Your task to perform on an android device: change notifications settings Image 0: 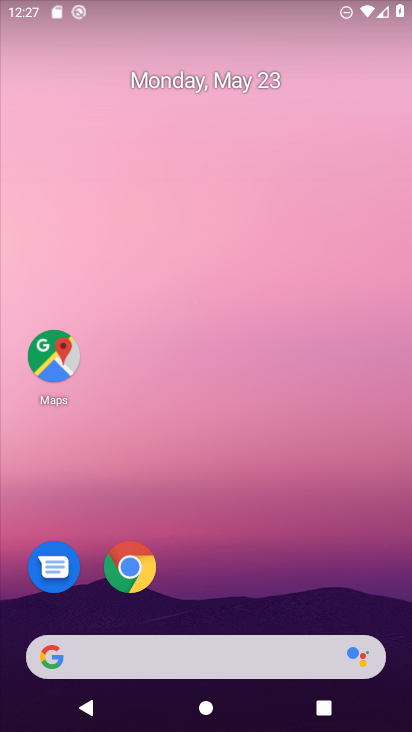
Step 0: drag from (179, 609) to (260, 212)
Your task to perform on an android device: change notifications settings Image 1: 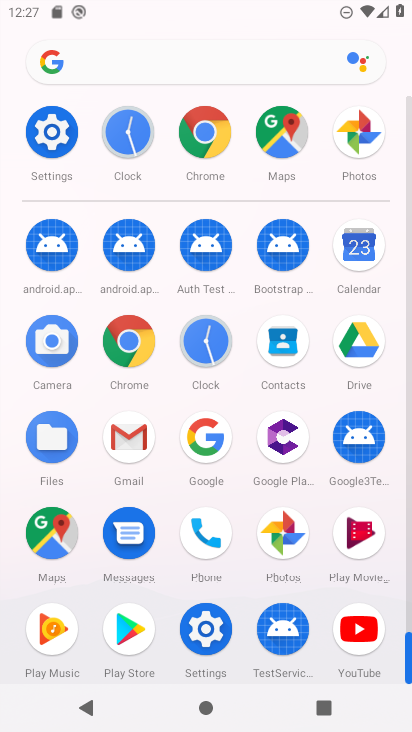
Step 1: click (52, 138)
Your task to perform on an android device: change notifications settings Image 2: 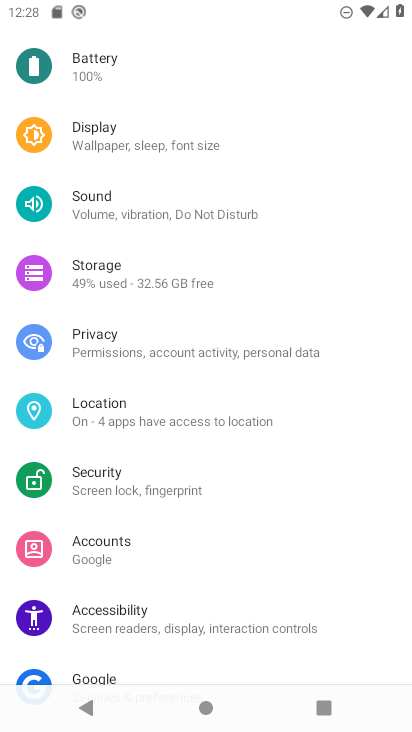
Step 2: drag from (118, 151) to (22, 730)
Your task to perform on an android device: change notifications settings Image 3: 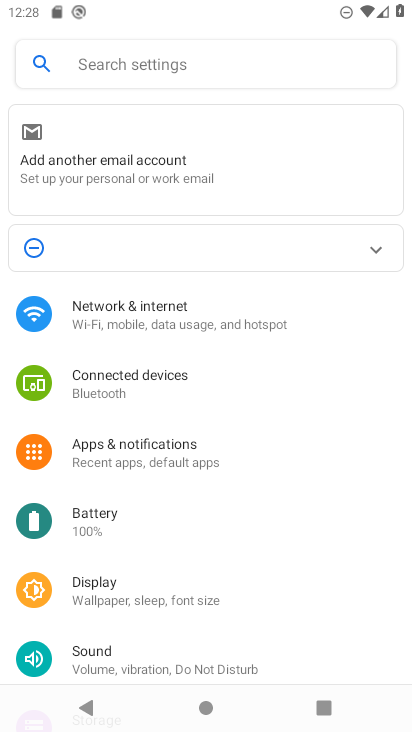
Step 3: click (104, 259)
Your task to perform on an android device: change notifications settings Image 4: 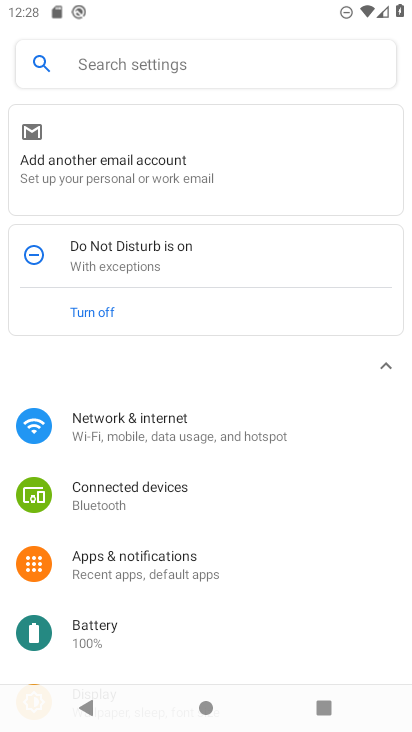
Step 4: click (135, 563)
Your task to perform on an android device: change notifications settings Image 5: 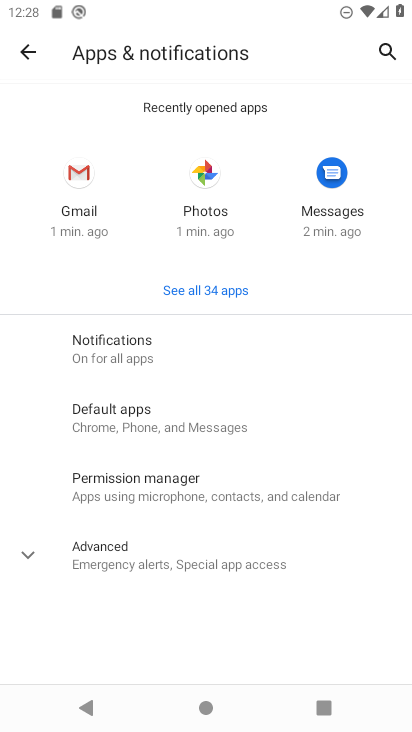
Step 5: click (173, 372)
Your task to perform on an android device: change notifications settings Image 6: 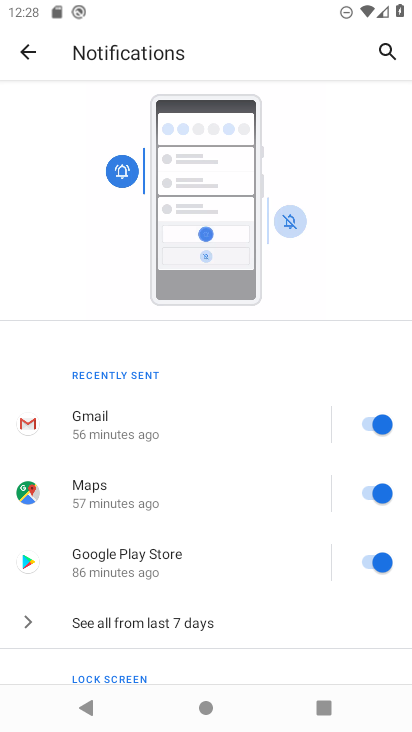
Step 6: drag from (227, 625) to (263, 309)
Your task to perform on an android device: change notifications settings Image 7: 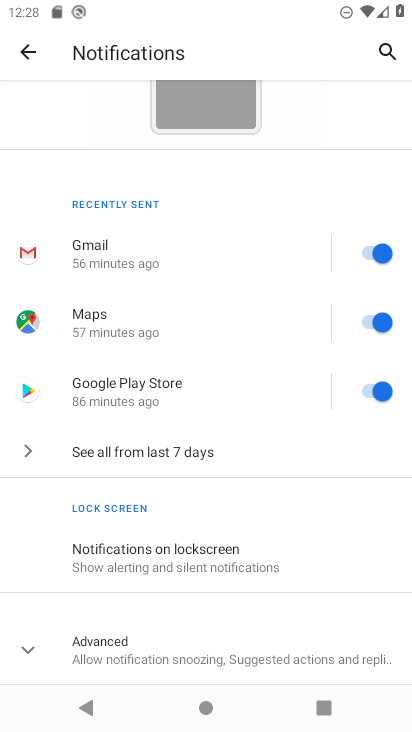
Step 7: click (115, 638)
Your task to perform on an android device: change notifications settings Image 8: 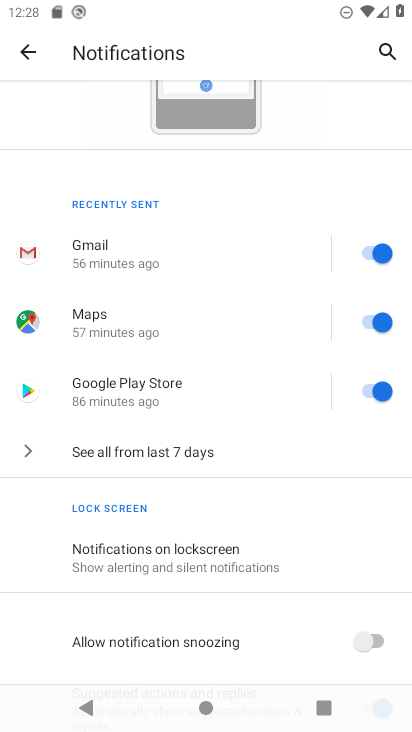
Step 8: click (370, 634)
Your task to perform on an android device: change notifications settings Image 9: 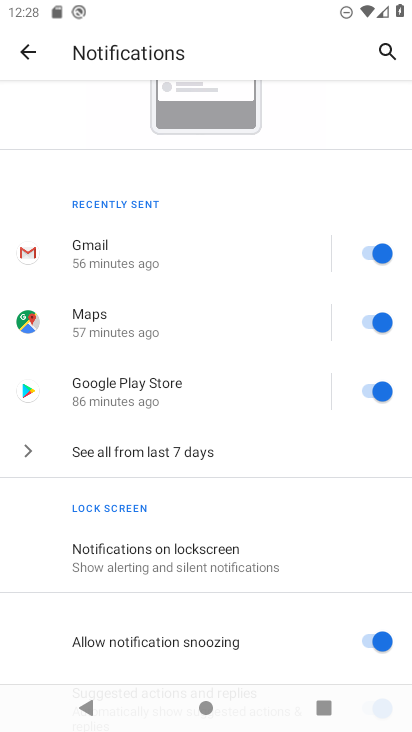
Step 9: task complete